Your task to perform on an android device: Go to network settings Image 0: 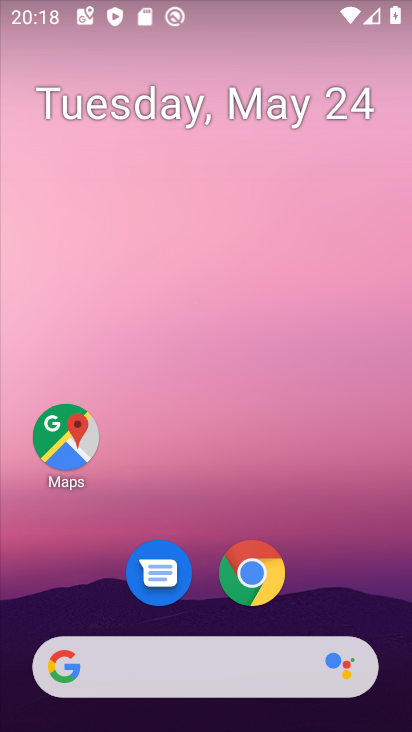
Step 0: drag from (343, 597) to (280, 78)
Your task to perform on an android device: Go to network settings Image 1: 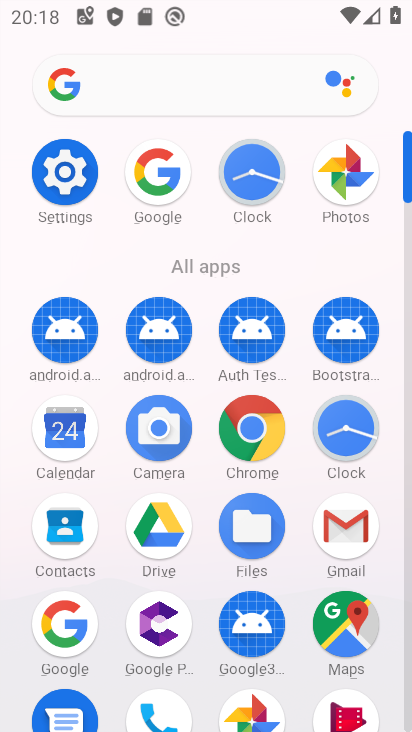
Step 1: click (72, 182)
Your task to perform on an android device: Go to network settings Image 2: 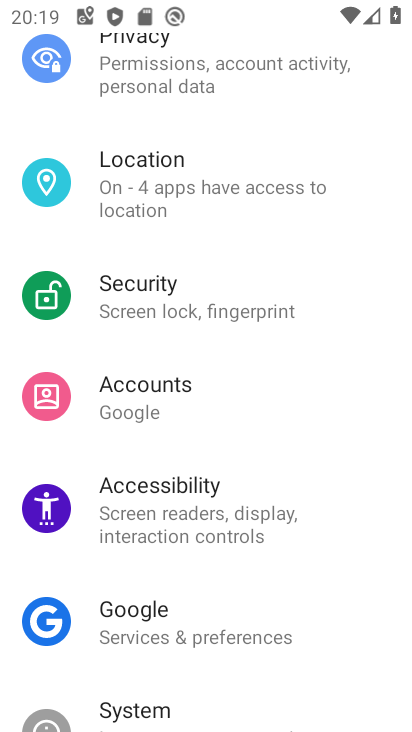
Step 2: drag from (254, 293) to (246, 590)
Your task to perform on an android device: Go to network settings Image 3: 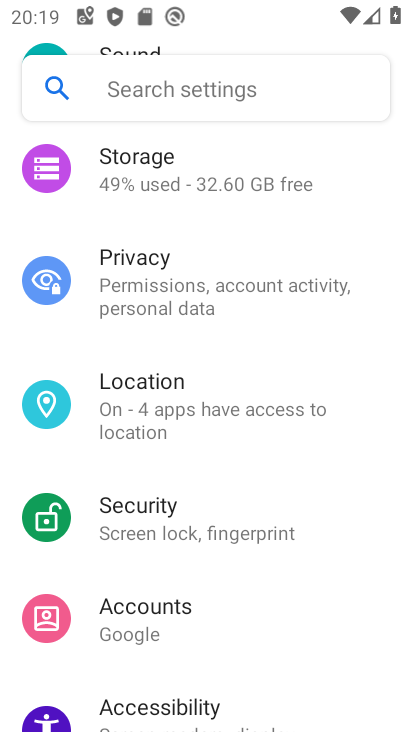
Step 3: drag from (276, 330) to (220, 613)
Your task to perform on an android device: Go to network settings Image 4: 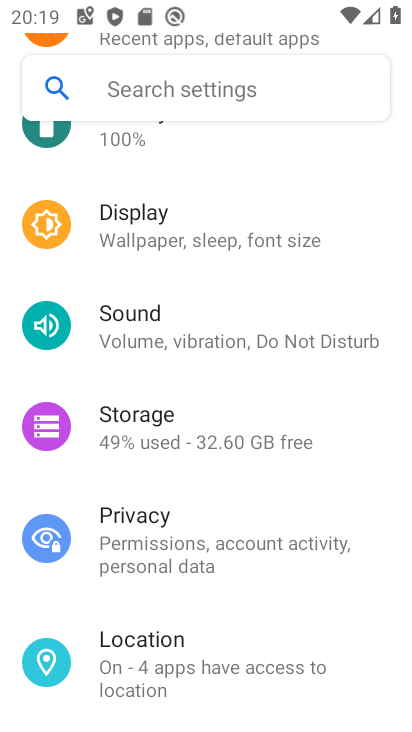
Step 4: drag from (270, 294) to (216, 594)
Your task to perform on an android device: Go to network settings Image 5: 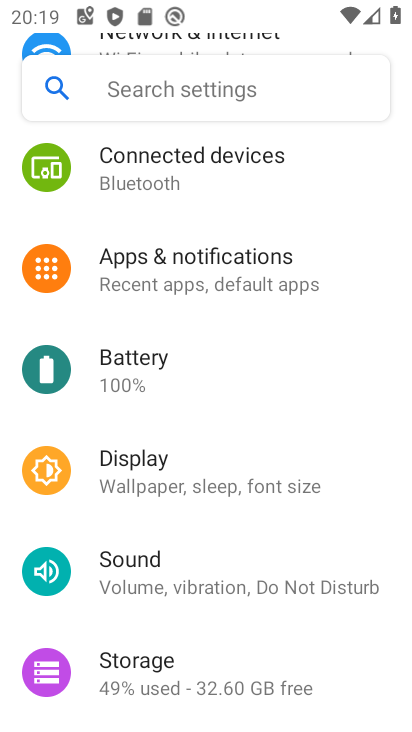
Step 5: drag from (286, 249) to (290, 572)
Your task to perform on an android device: Go to network settings Image 6: 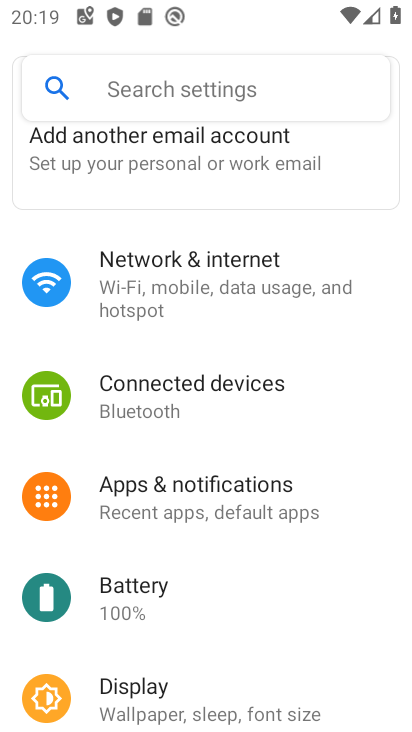
Step 6: click (267, 267)
Your task to perform on an android device: Go to network settings Image 7: 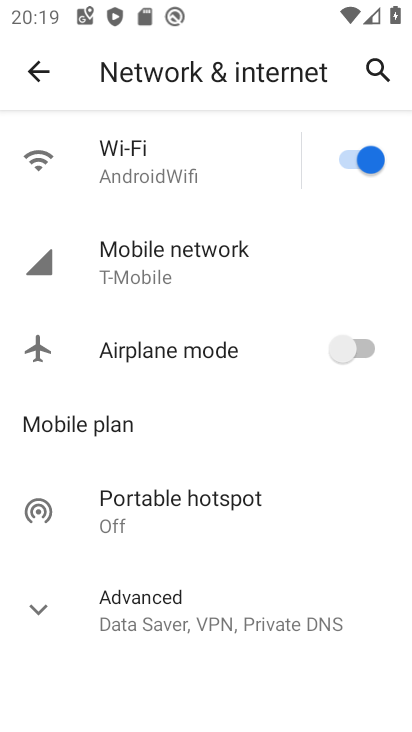
Step 7: click (208, 239)
Your task to perform on an android device: Go to network settings Image 8: 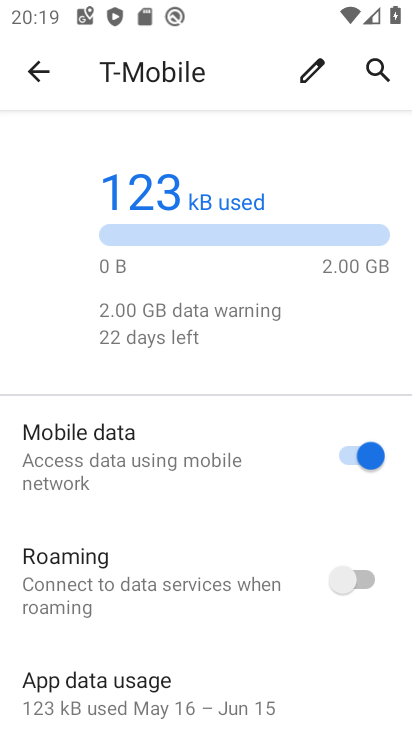
Step 8: task complete